Your task to perform on an android device: See recent photos Image 0: 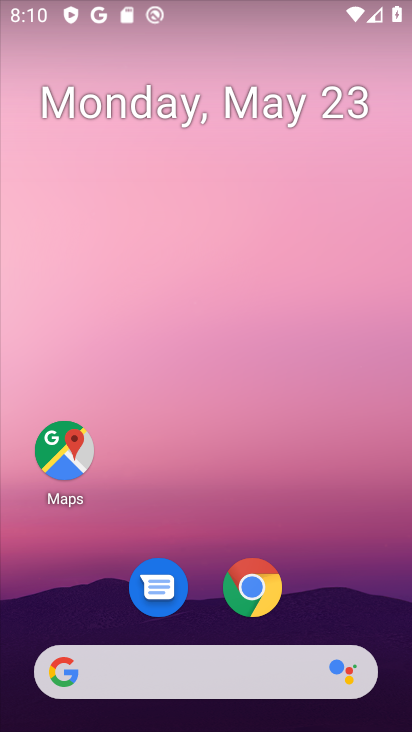
Step 0: drag from (211, 591) to (269, 71)
Your task to perform on an android device: See recent photos Image 1: 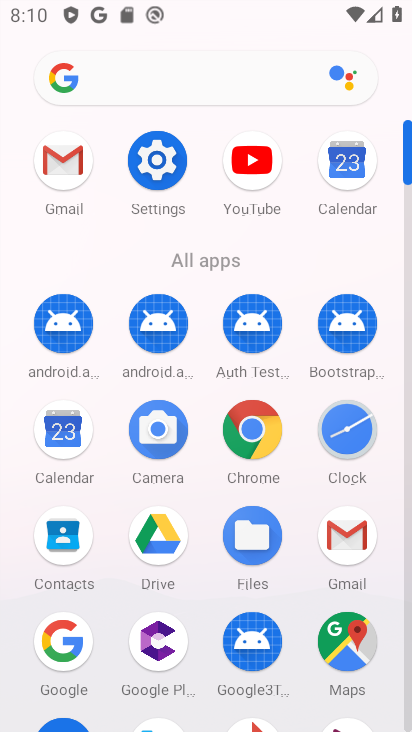
Step 1: drag from (219, 621) to (266, 222)
Your task to perform on an android device: See recent photos Image 2: 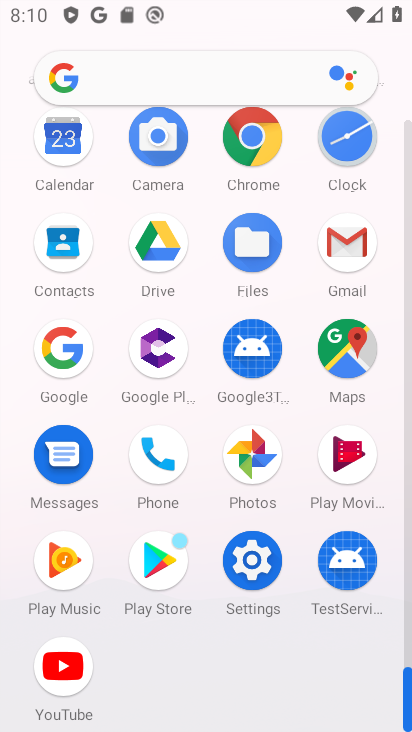
Step 2: click (260, 448)
Your task to perform on an android device: See recent photos Image 3: 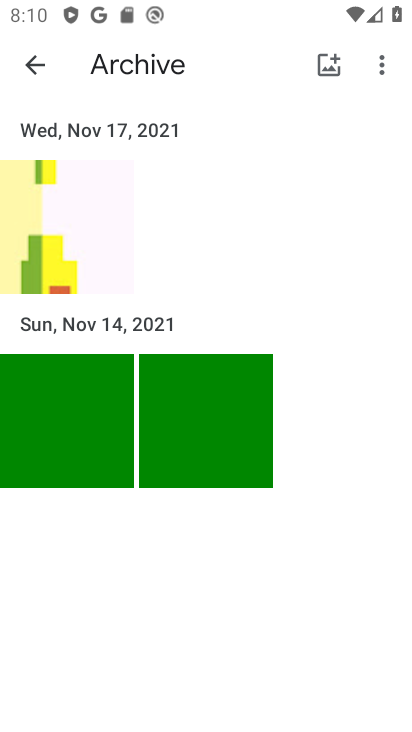
Step 3: click (27, 67)
Your task to perform on an android device: See recent photos Image 4: 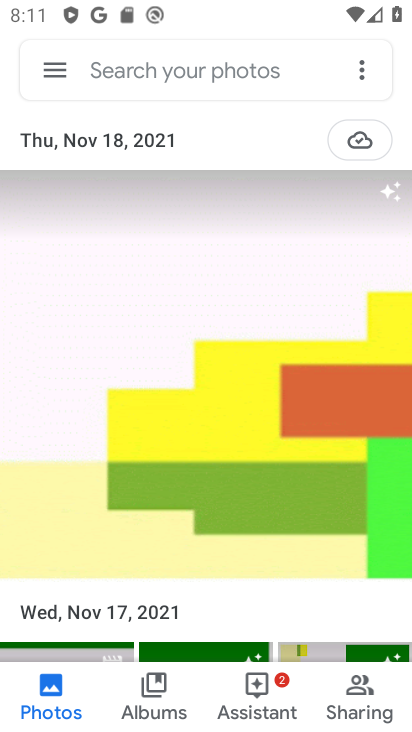
Step 4: task complete